Your task to perform on an android device: Open Google Image 0: 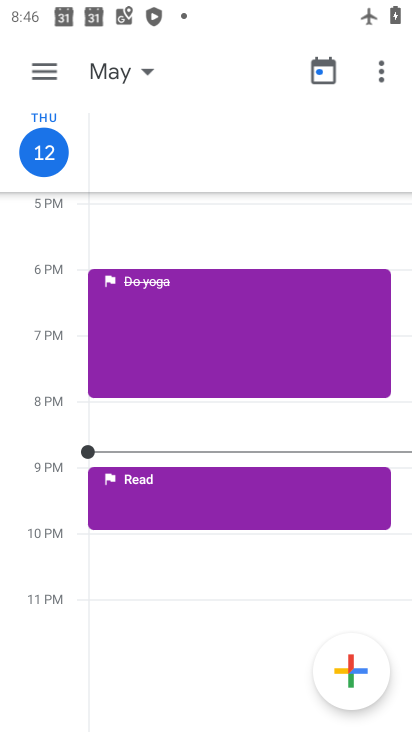
Step 0: press home button
Your task to perform on an android device: Open Google Image 1: 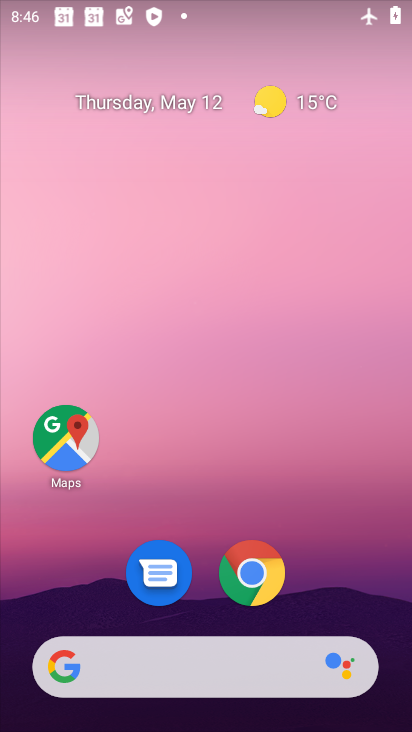
Step 1: click (87, 663)
Your task to perform on an android device: Open Google Image 2: 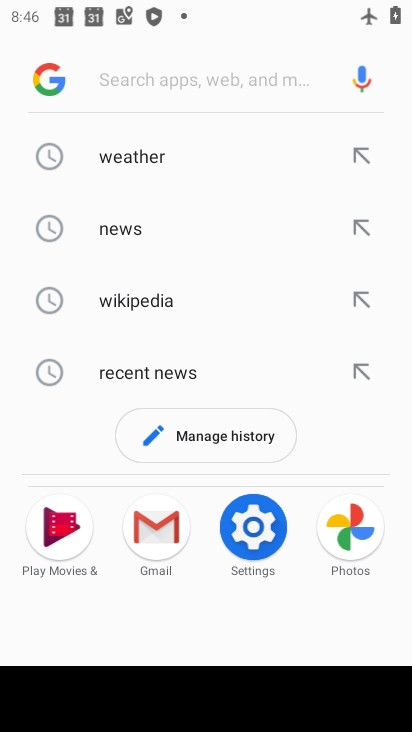
Step 2: task complete